Your task to perform on an android device: Add "macbook pro 15 inch" to the cart on costco.com, then select checkout. Image 0: 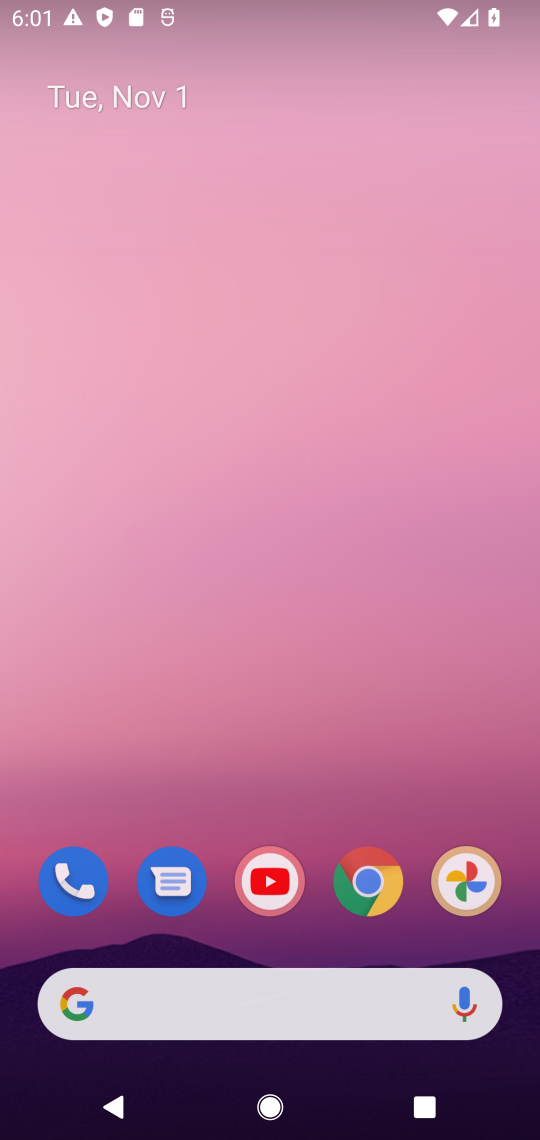
Step 0: press home button
Your task to perform on an android device: Add "macbook pro 15 inch" to the cart on costco.com, then select checkout. Image 1: 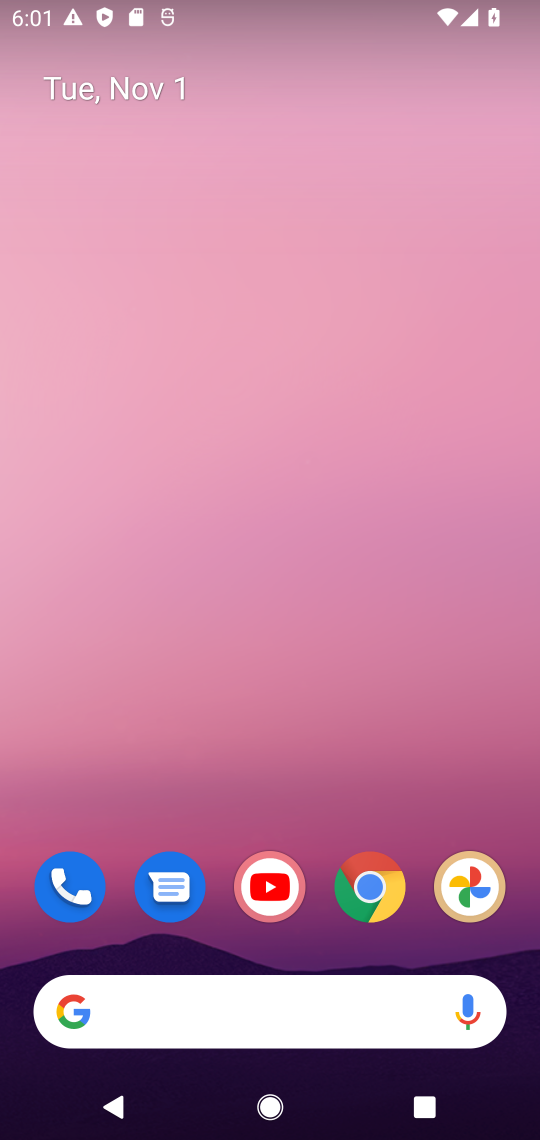
Step 1: drag from (313, 835) to (382, 0)
Your task to perform on an android device: Add "macbook pro 15 inch" to the cart on costco.com, then select checkout. Image 2: 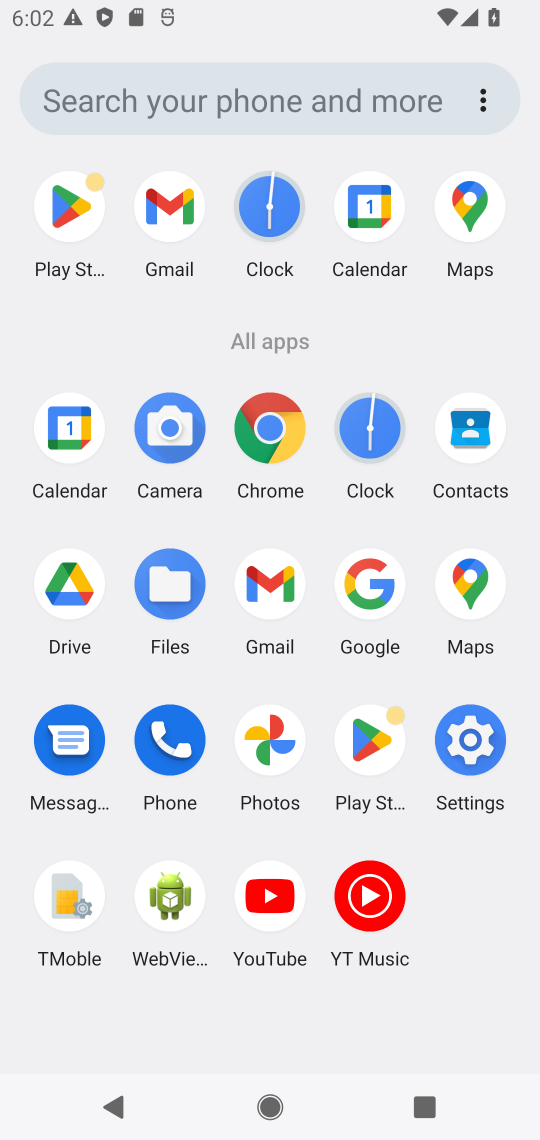
Step 2: click (265, 428)
Your task to perform on an android device: Add "macbook pro 15 inch" to the cart on costco.com, then select checkout. Image 3: 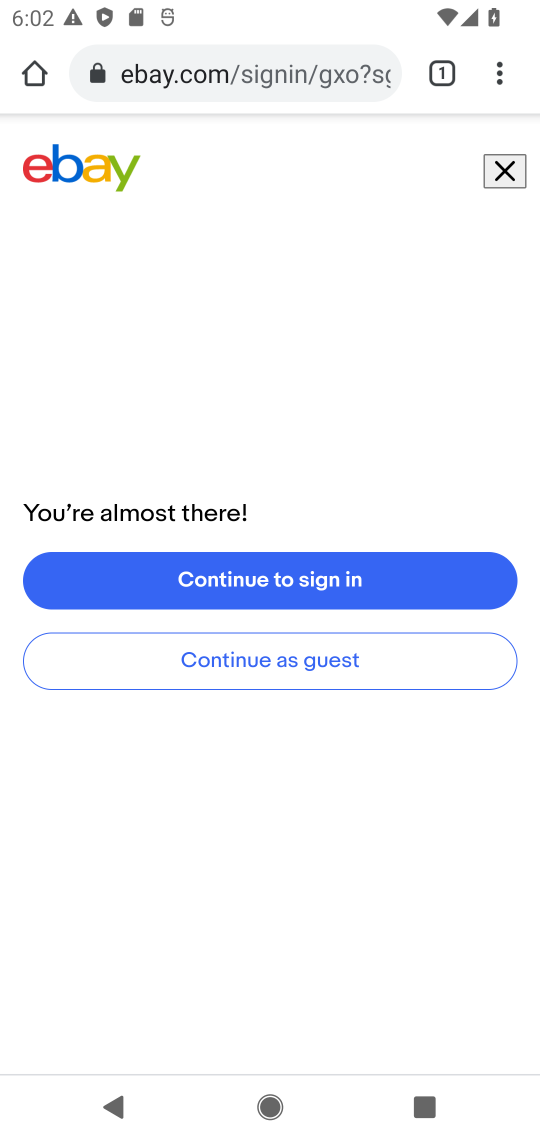
Step 3: click (218, 71)
Your task to perform on an android device: Add "macbook pro 15 inch" to the cart on costco.com, then select checkout. Image 4: 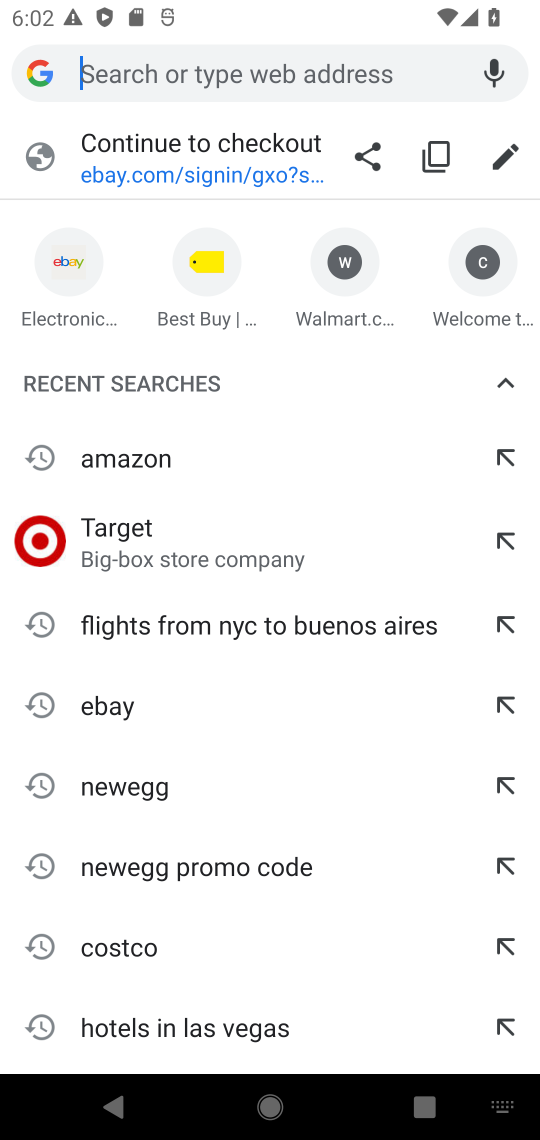
Step 4: type "costco.com"
Your task to perform on an android device: Add "macbook pro 15 inch" to the cart on costco.com, then select checkout. Image 5: 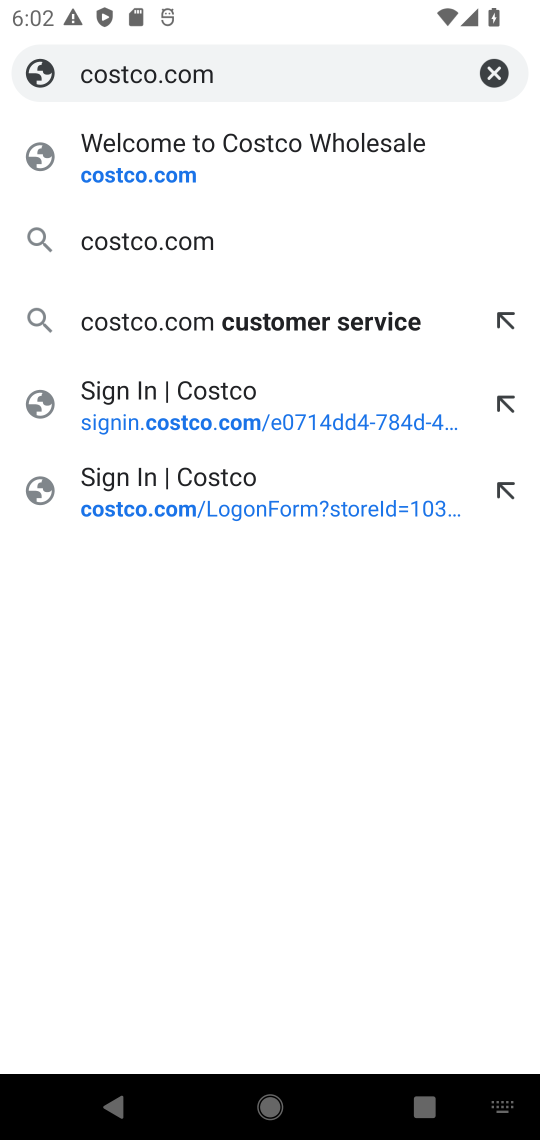
Step 5: click (223, 167)
Your task to perform on an android device: Add "macbook pro 15 inch" to the cart on costco.com, then select checkout. Image 6: 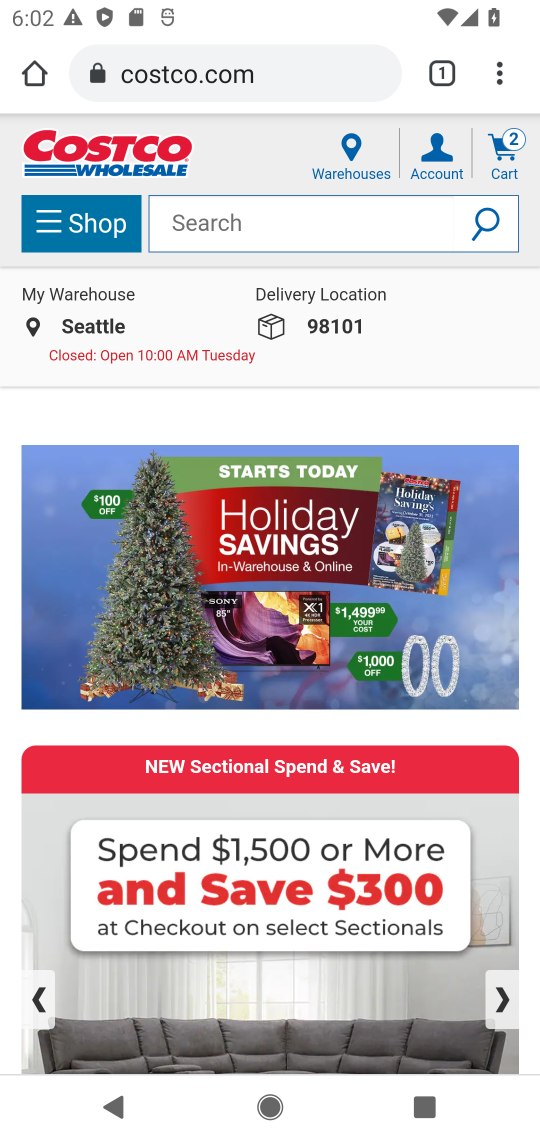
Step 6: click (264, 220)
Your task to perform on an android device: Add "macbook pro 15 inch" to the cart on costco.com, then select checkout. Image 7: 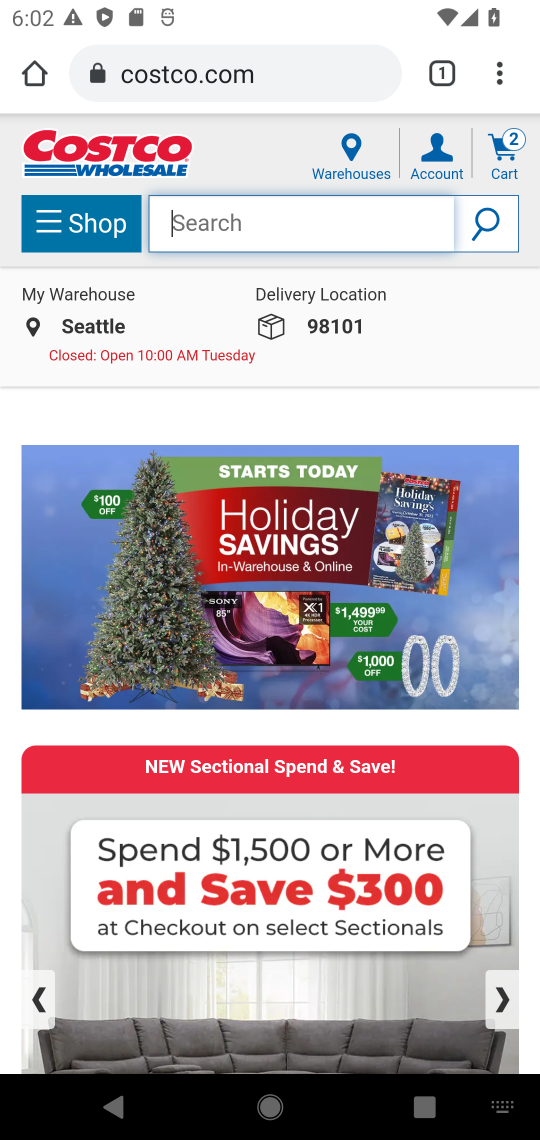
Step 7: type "macbook pro 15 inch"
Your task to perform on an android device: Add "macbook pro 15 inch" to the cart on costco.com, then select checkout. Image 8: 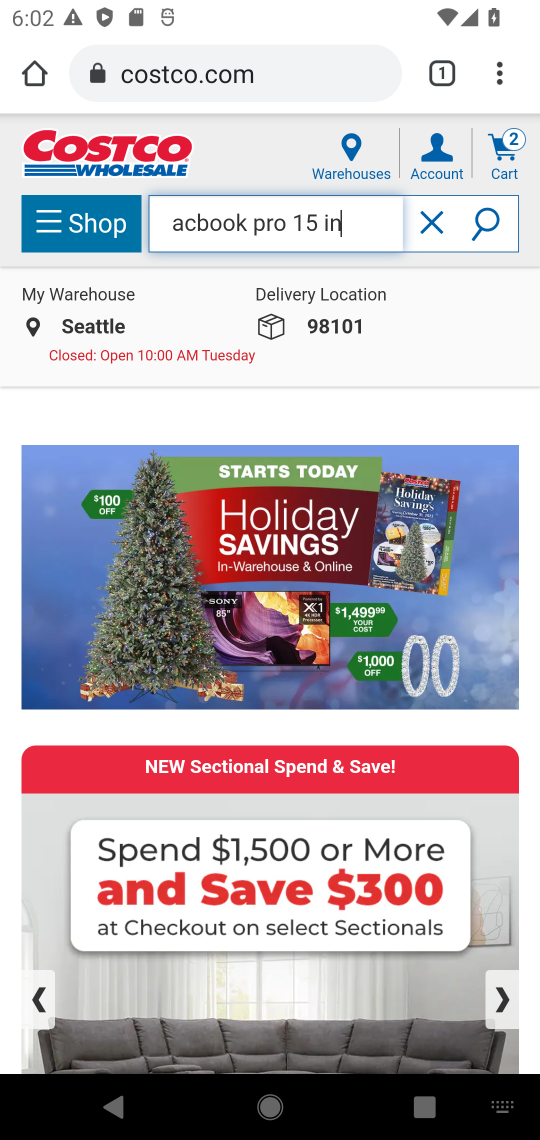
Step 8: type ""
Your task to perform on an android device: Add "macbook pro 15 inch" to the cart on costco.com, then select checkout. Image 9: 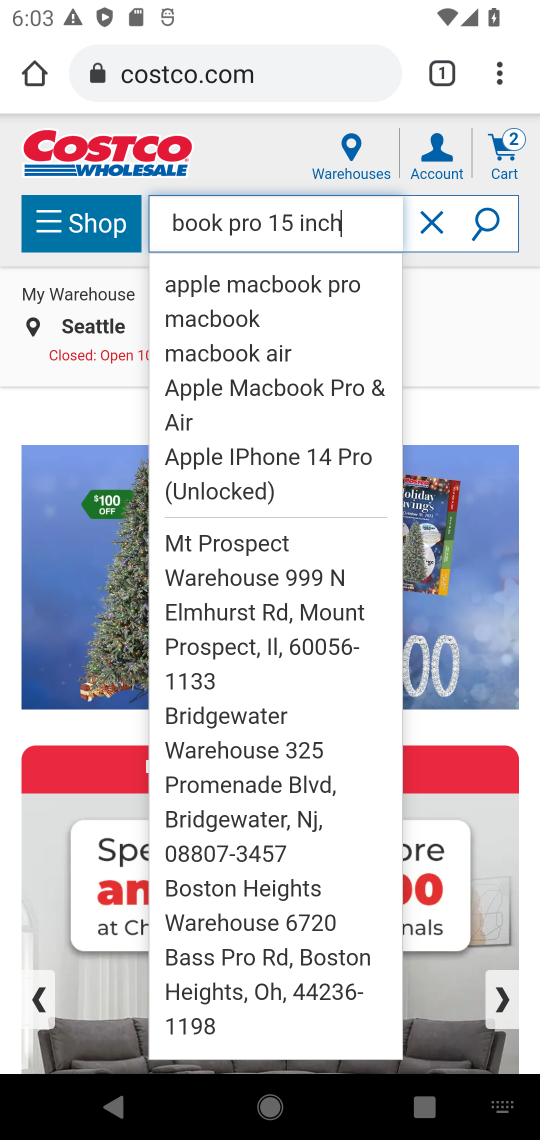
Step 9: click (263, 396)
Your task to perform on an android device: Add "macbook pro 15 inch" to the cart on costco.com, then select checkout. Image 10: 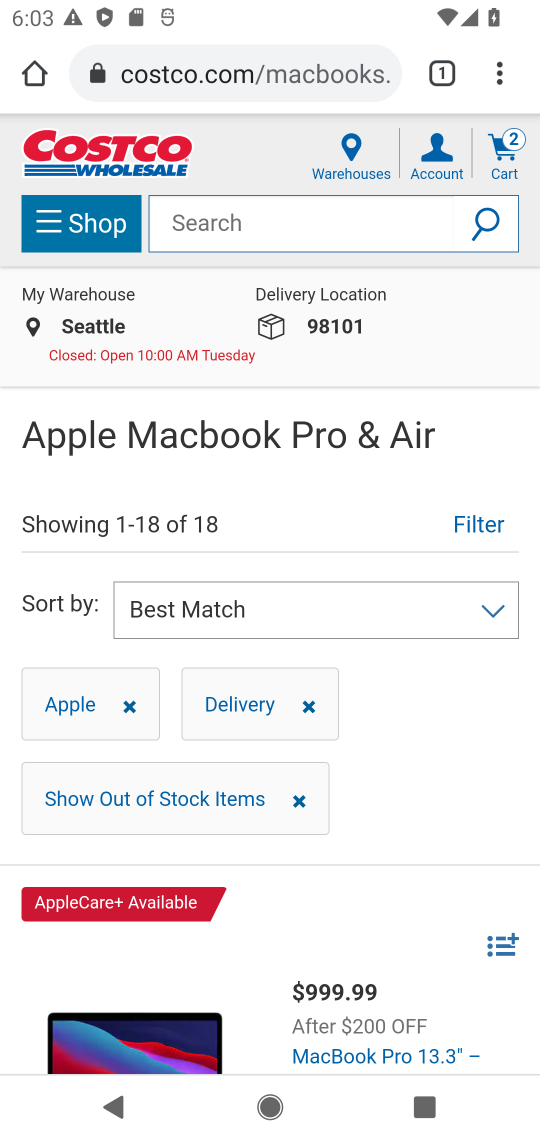
Step 10: click (513, 149)
Your task to perform on an android device: Add "macbook pro 15 inch" to the cart on costco.com, then select checkout. Image 11: 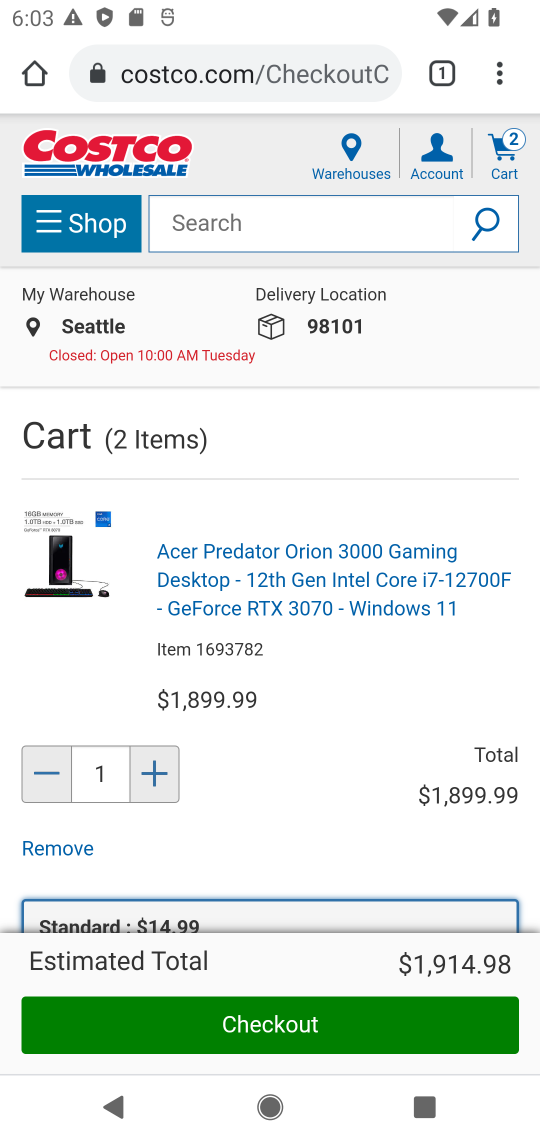
Step 11: click (281, 1026)
Your task to perform on an android device: Add "macbook pro 15 inch" to the cart on costco.com, then select checkout. Image 12: 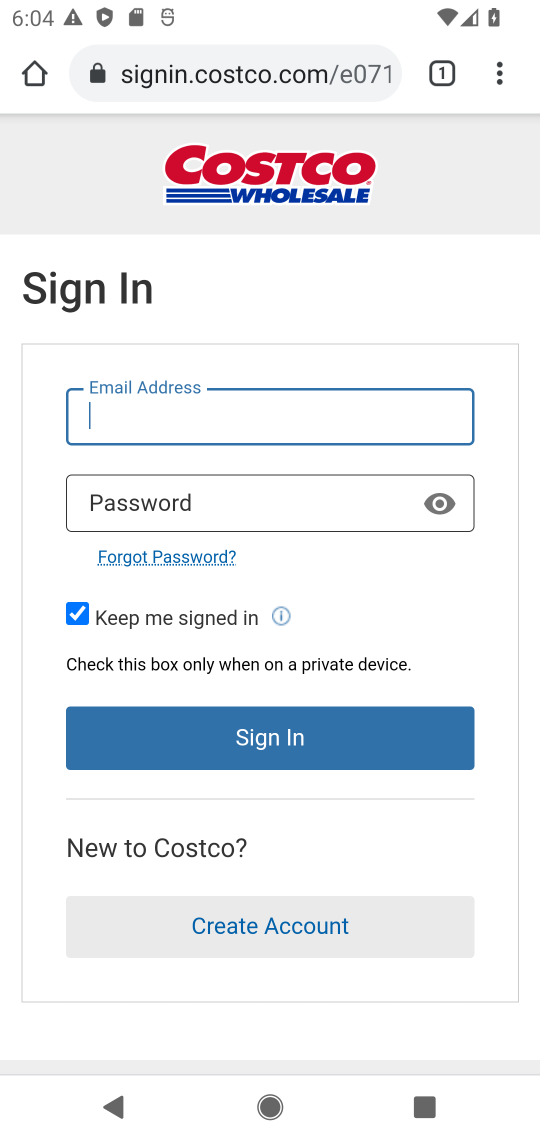
Step 12: task complete